Your task to perform on an android device: What's the weather going to be this weekend? Image 0: 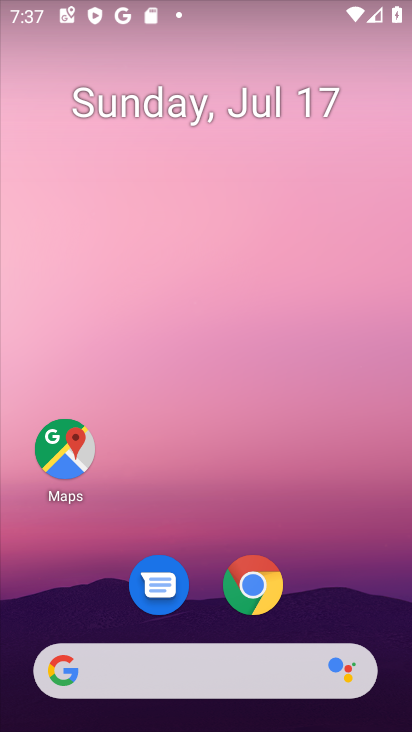
Step 0: click (140, 688)
Your task to perform on an android device: What's the weather going to be this weekend? Image 1: 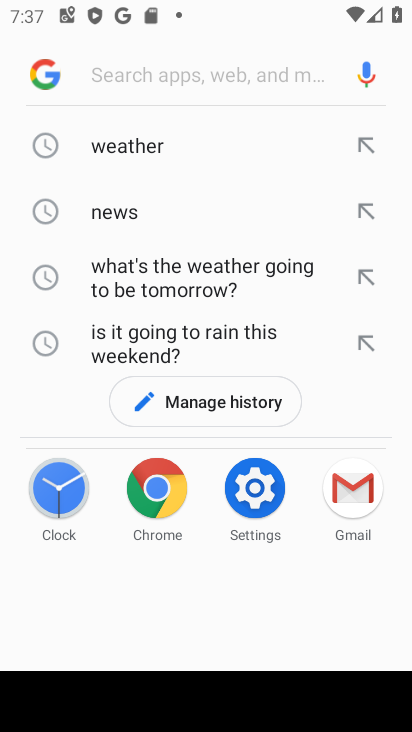
Step 1: click (110, 135)
Your task to perform on an android device: What's the weather going to be this weekend? Image 2: 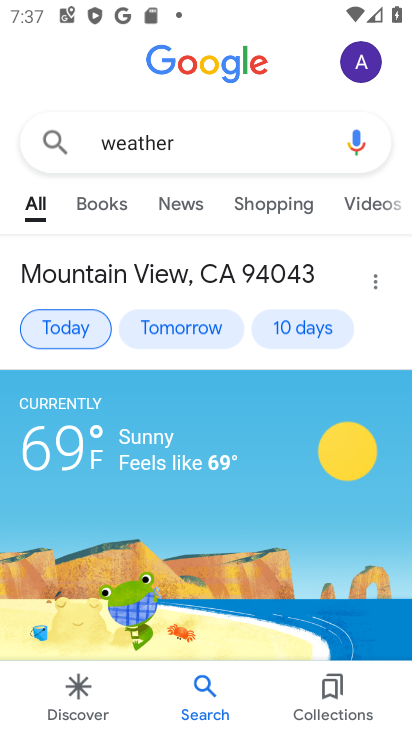
Step 2: click (88, 322)
Your task to perform on an android device: What's the weather going to be this weekend? Image 3: 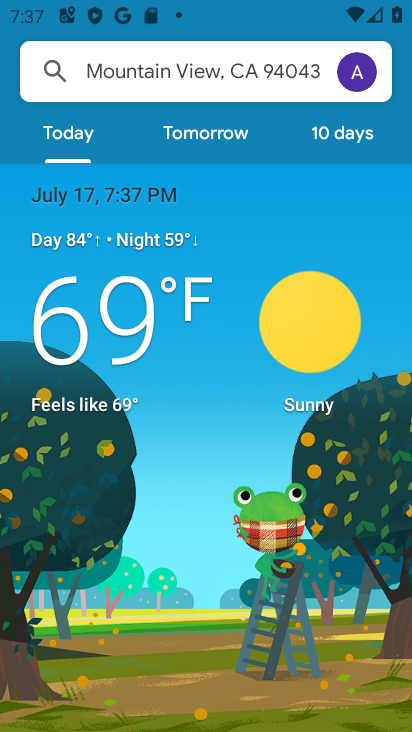
Step 3: click (337, 131)
Your task to perform on an android device: What's the weather going to be this weekend? Image 4: 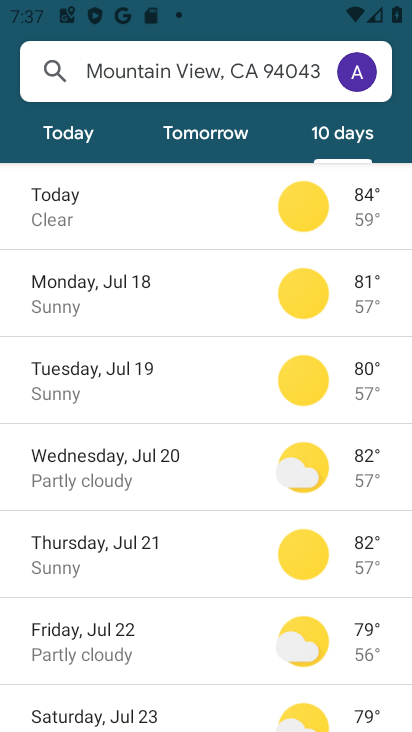
Step 4: drag from (180, 559) to (185, 224)
Your task to perform on an android device: What's the weather going to be this weekend? Image 5: 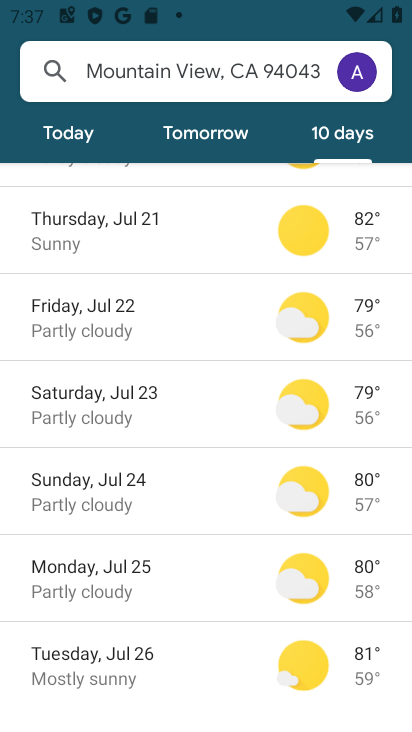
Step 5: click (116, 410)
Your task to perform on an android device: What's the weather going to be this weekend? Image 6: 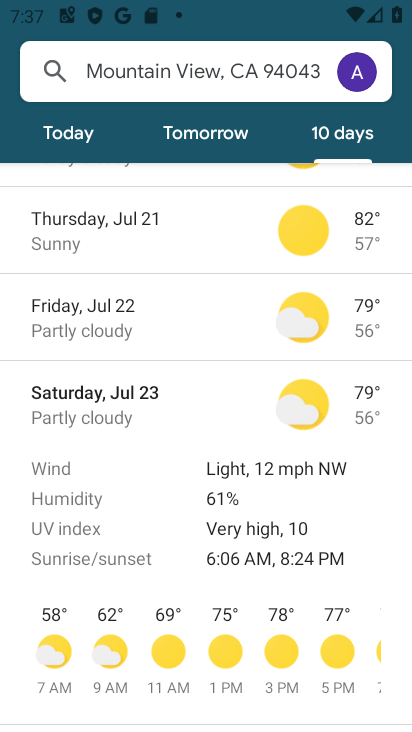
Step 6: task complete